Your task to perform on an android device: When is my next meeting? Image 0: 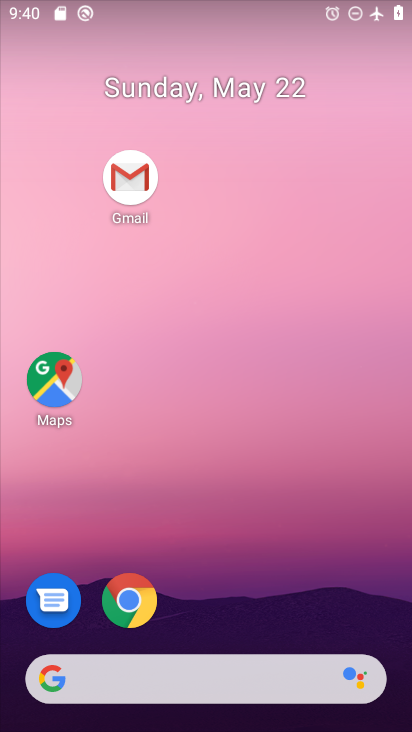
Step 0: drag from (253, 690) to (264, 99)
Your task to perform on an android device: When is my next meeting? Image 1: 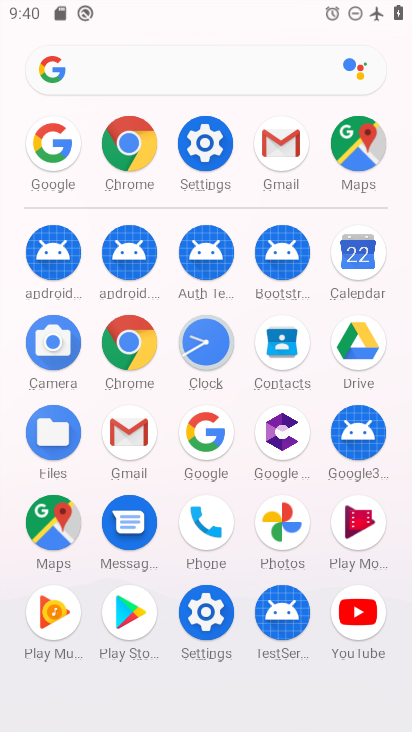
Step 1: click (353, 269)
Your task to perform on an android device: When is my next meeting? Image 2: 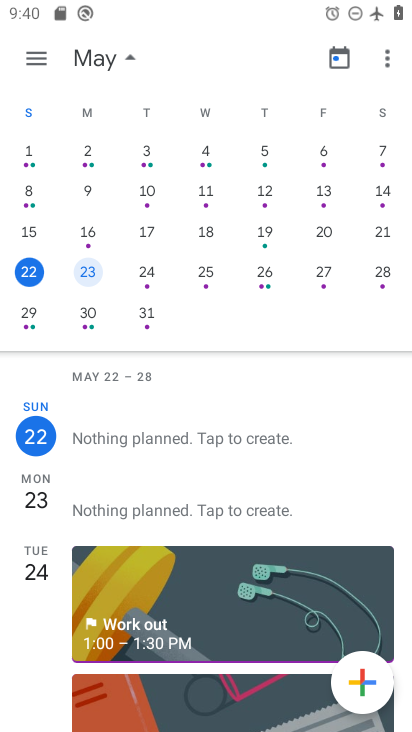
Step 2: click (43, 60)
Your task to perform on an android device: When is my next meeting? Image 3: 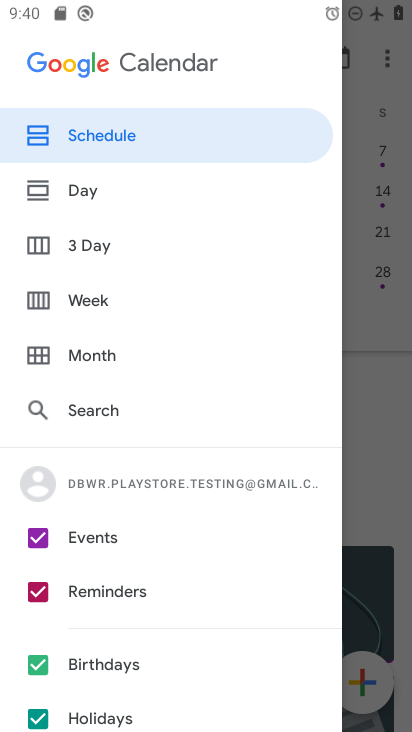
Step 3: drag from (157, 602) to (191, 297)
Your task to perform on an android device: When is my next meeting? Image 4: 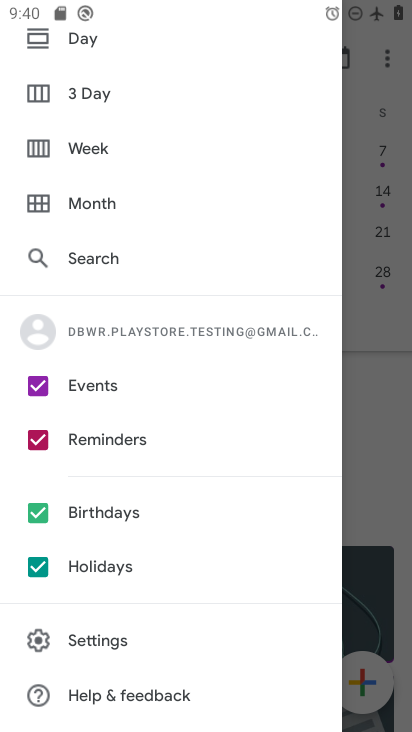
Step 4: click (41, 520)
Your task to perform on an android device: When is my next meeting? Image 5: 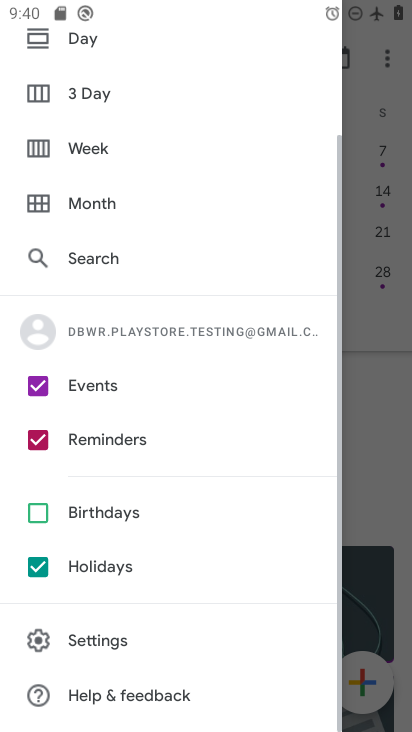
Step 5: click (36, 567)
Your task to perform on an android device: When is my next meeting? Image 6: 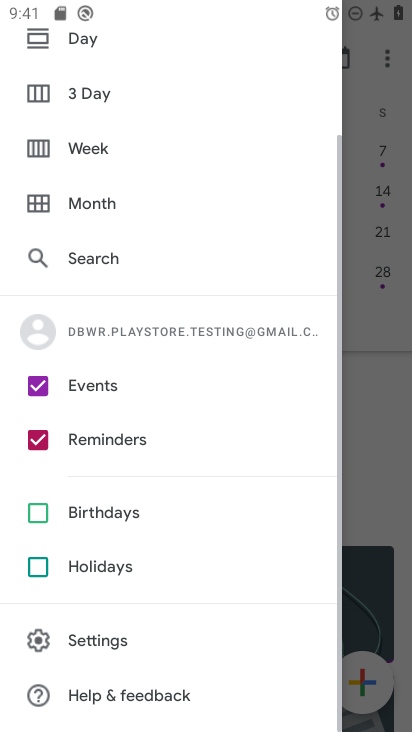
Step 6: click (365, 424)
Your task to perform on an android device: When is my next meeting? Image 7: 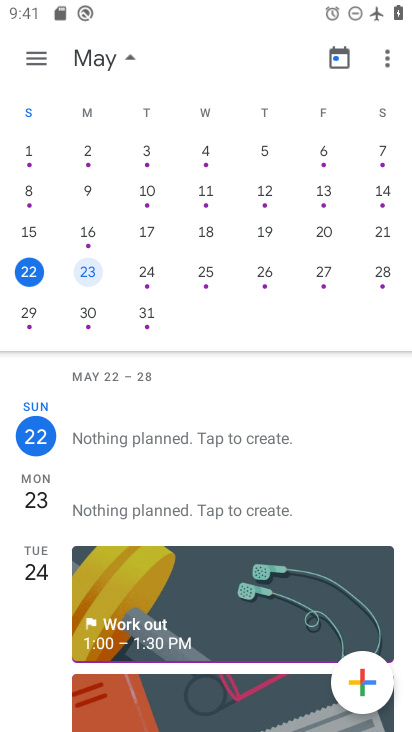
Step 7: task complete